Your task to perform on an android device: clear history in the chrome app Image 0: 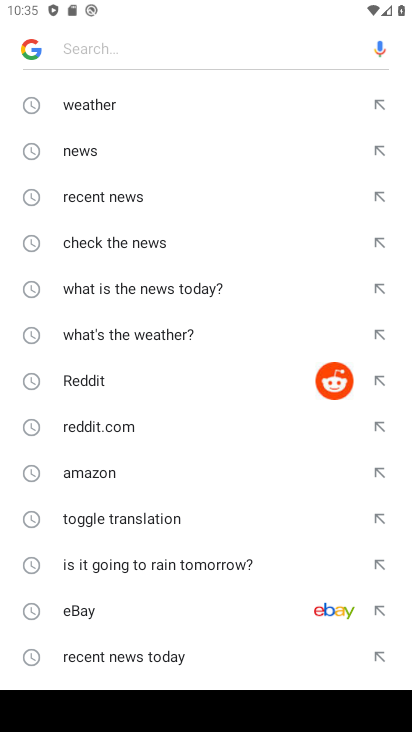
Step 0: press home button
Your task to perform on an android device: clear history in the chrome app Image 1: 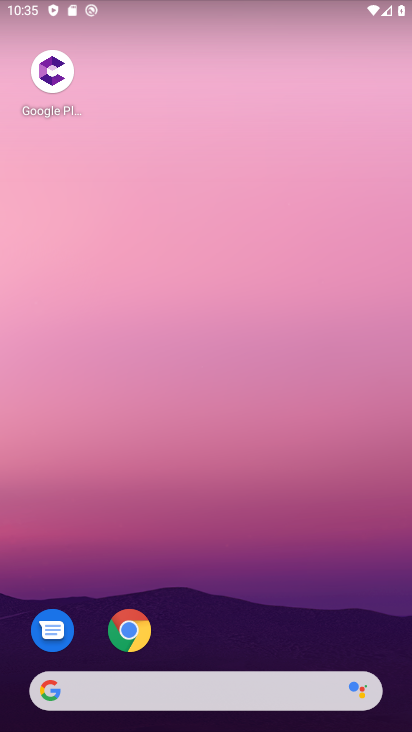
Step 1: click (117, 635)
Your task to perform on an android device: clear history in the chrome app Image 2: 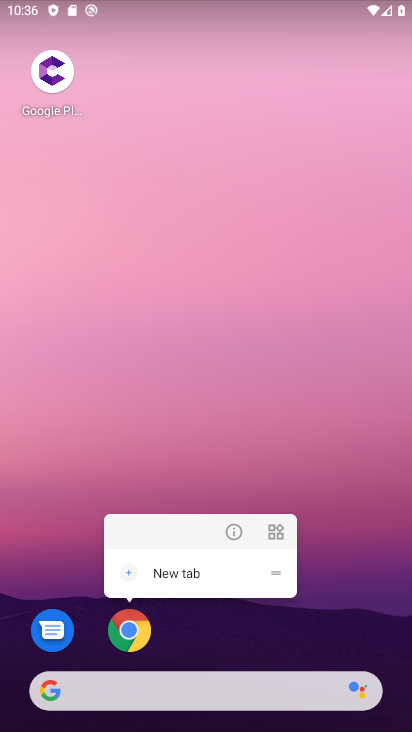
Step 2: click (135, 634)
Your task to perform on an android device: clear history in the chrome app Image 3: 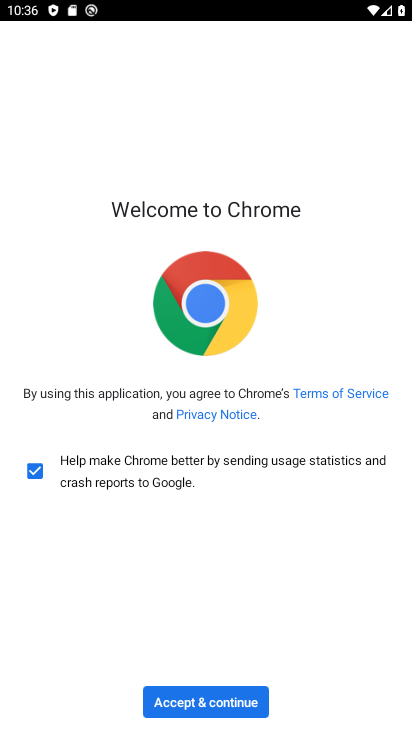
Step 3: click (207, 693)
Your task to perform on an android device: clear history in the chrome app Image 4: 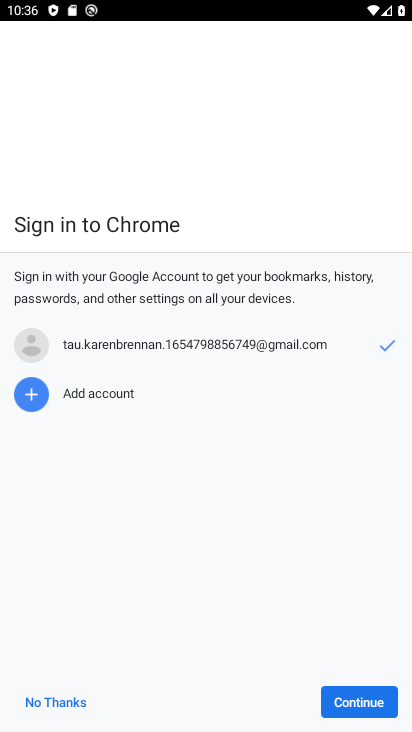
Step 4: click (347, 715)
Your task to perform on an android device: clear history in the chrome app Image 5: 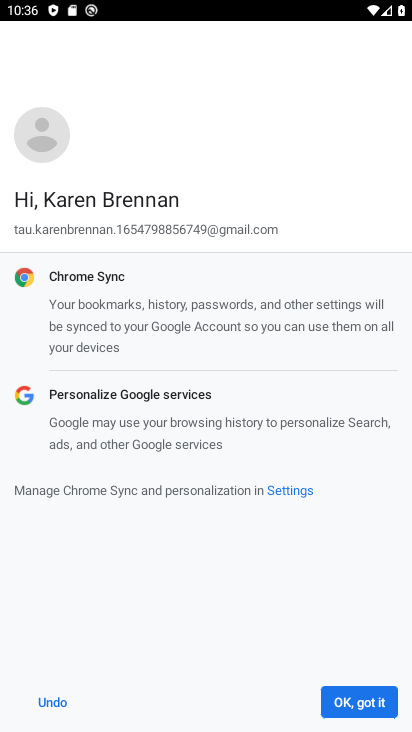
Step 5: click (344, 702)
Your task to perform on an android device: clear history in the chrome app Image 6: 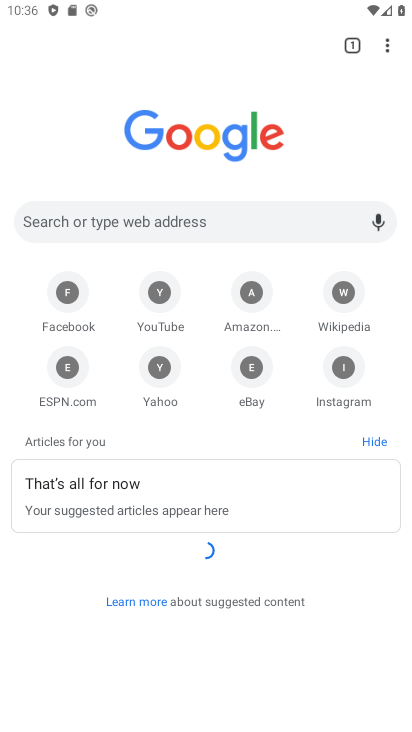
Step 6: click (391, 45)
Your task to perform on an android device: clear history in the chrome app Image 7: 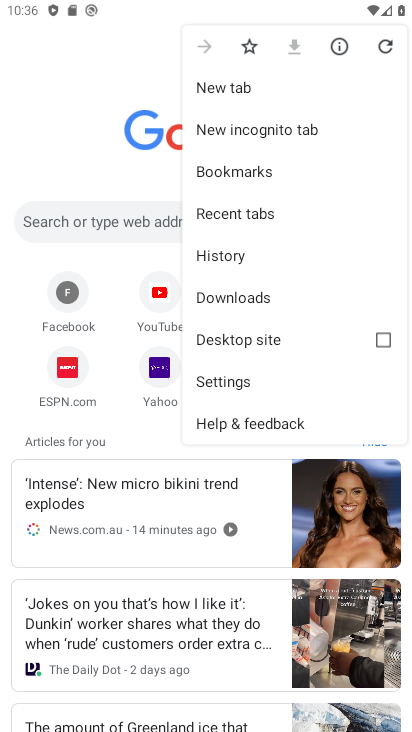
Step 7: click (236, 255)
Your task to perform on an android device: clear history in the chrome app Image 8: 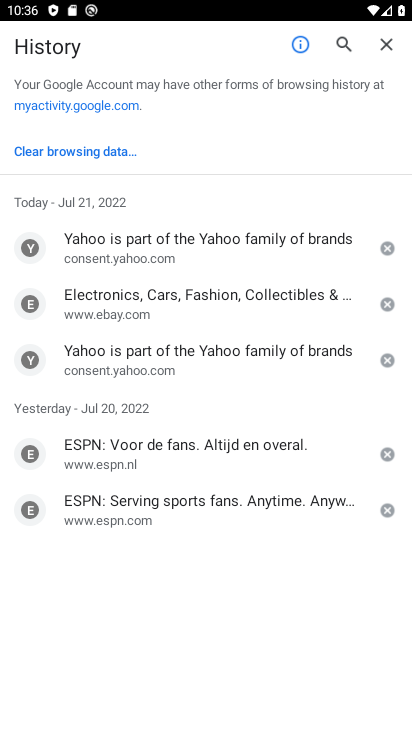
Step 8: click (79, 153)
Your task to perform on an android device: clear history in the chrome app Image 9: 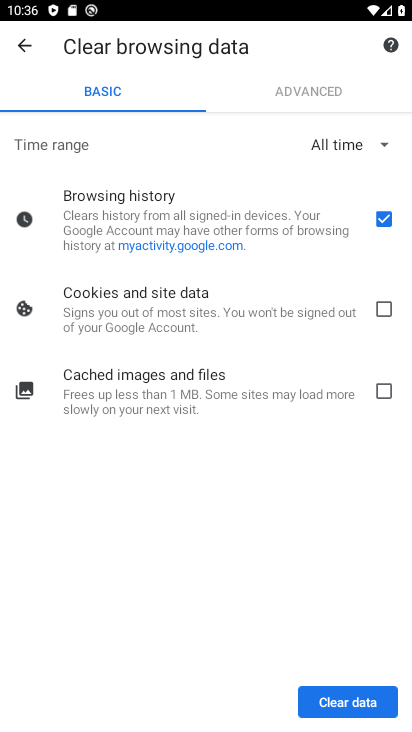
Step 9: click (385, 389)
Your task to perform on an android device: clear history in the chrome app Image 10: 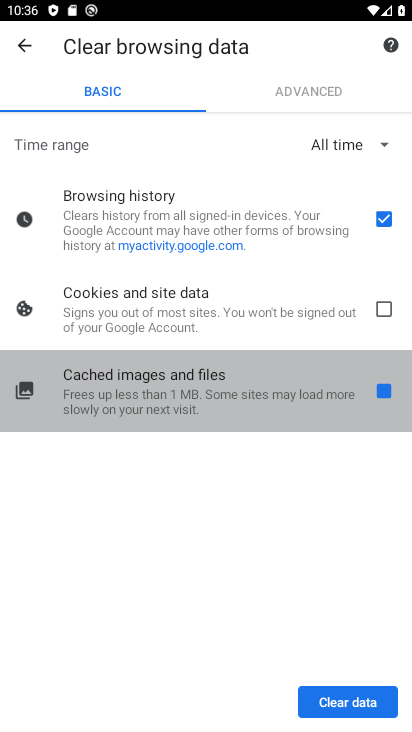
Step 10: click (388, 303)
Your task to perform on an android device: clear history in the chrome app Image 11: 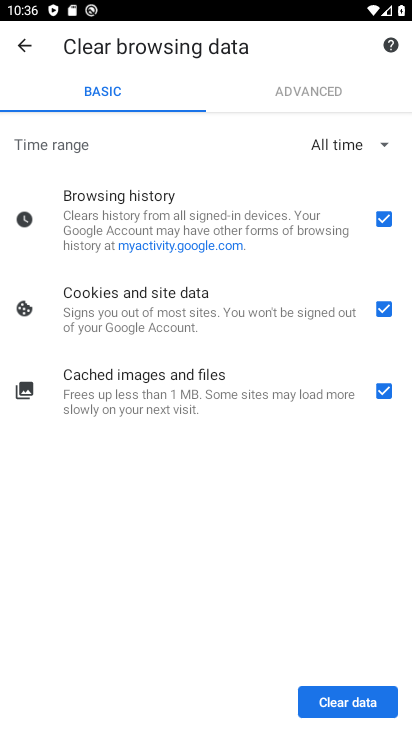
Step 11: click (354, 695)
Your task to perform on an android device: clear history in the chrome app Image 12: 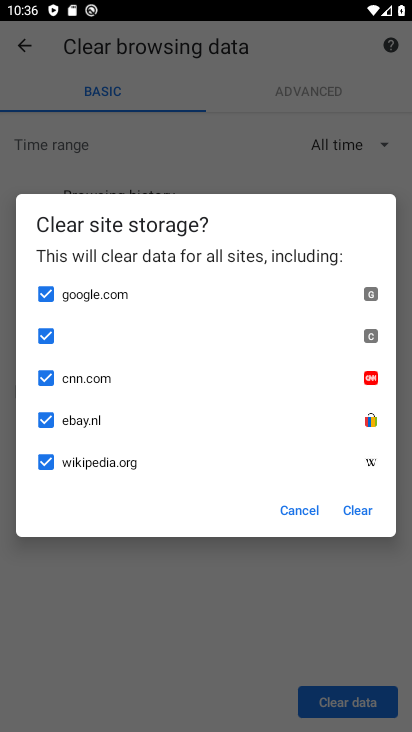
Step 12: click (361, 501)
Your task to perform on an android device: clear history in the chrome app Image 13: 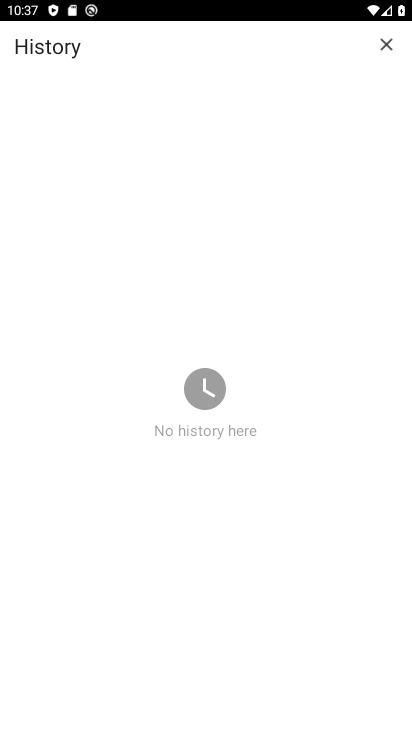
Step 13: task complete